Your task to perform on an android device: toggle sleep mode Image 0: 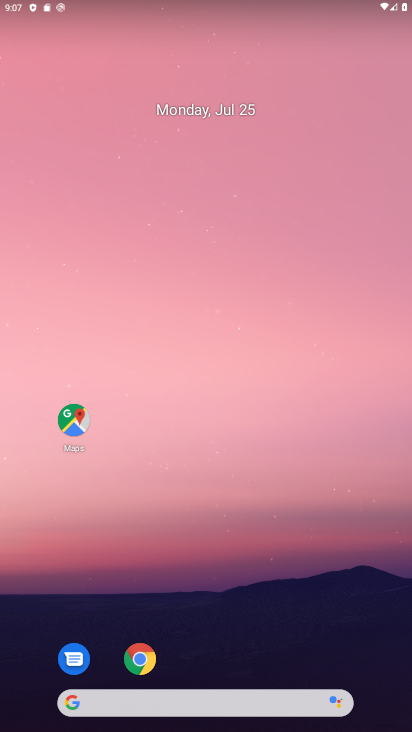
Step 0: drag from (199, 637) to (193, 137)
Your task to perform on an android device: toggle sleep mode Image 1: 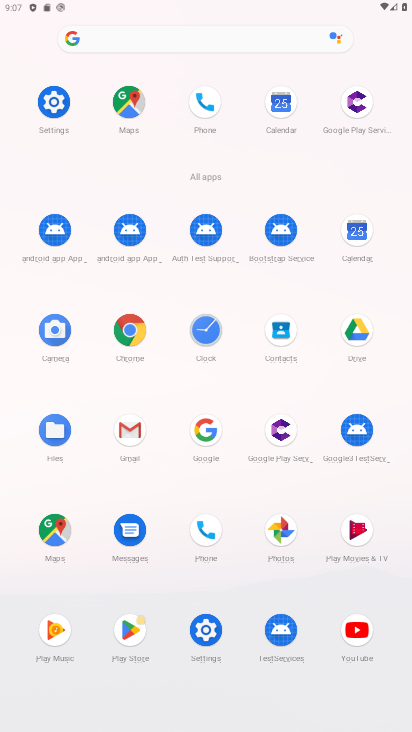
Step 1: click (214, 639)
Your task to perform on an android device: toggle sleep mode Image 2: 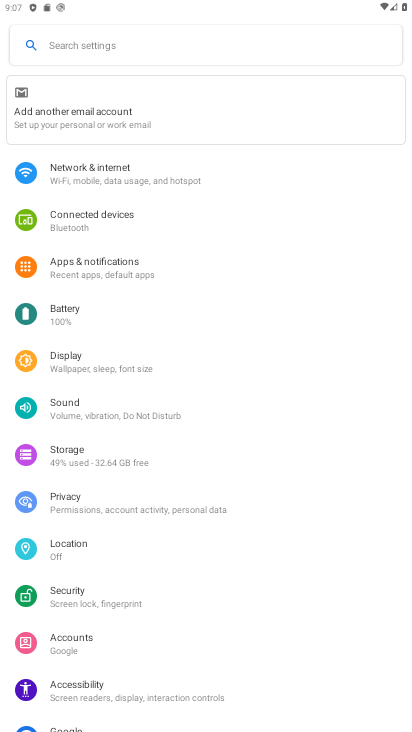
Step 2: click (166, 42)
Your task to perform on an android device: toggle sleep mode Image 3: 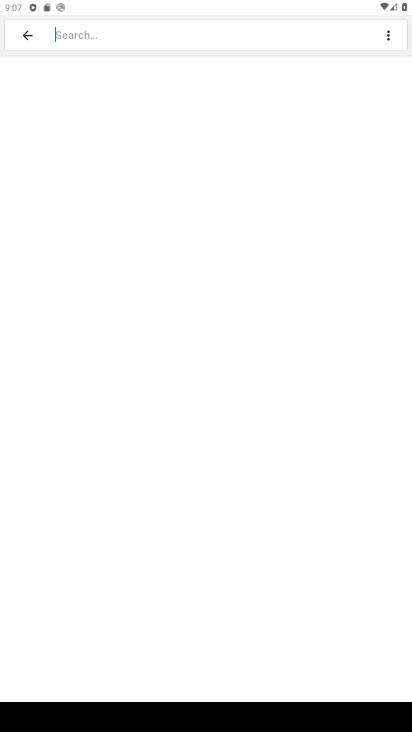
Step 3: type "sleep mode"
Your task to perform on an android device: toggle sleep mode Image 4: 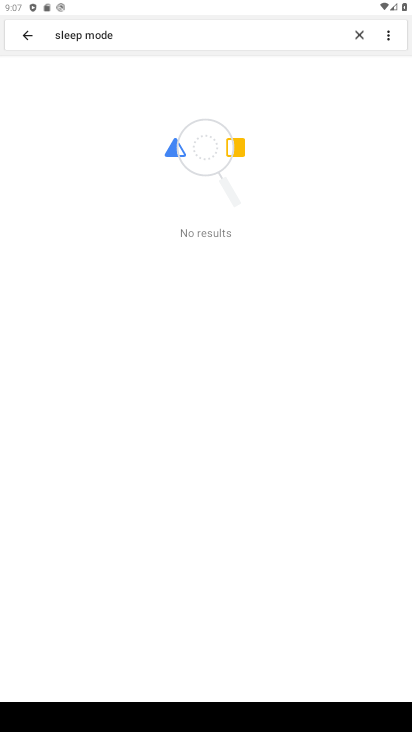
Step 4: task complete